Your task to perform on an android device: toggle show notifications on the lock screen Image 0: 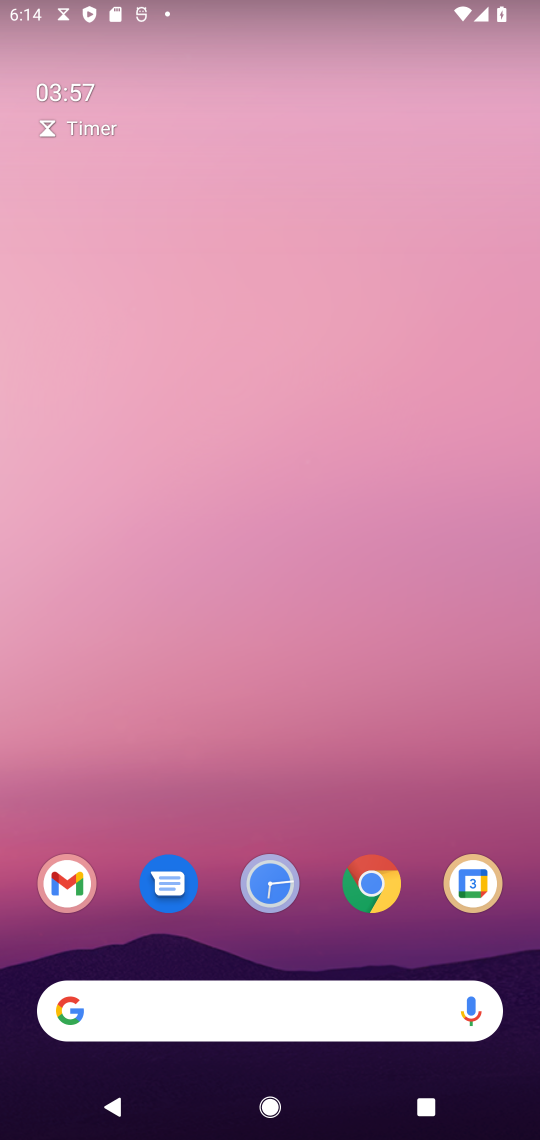
Step 0: drag from (302, 946) to (302, 514)
Your task to perform on an android device: toggle show notifications on the lock screen Image 1: 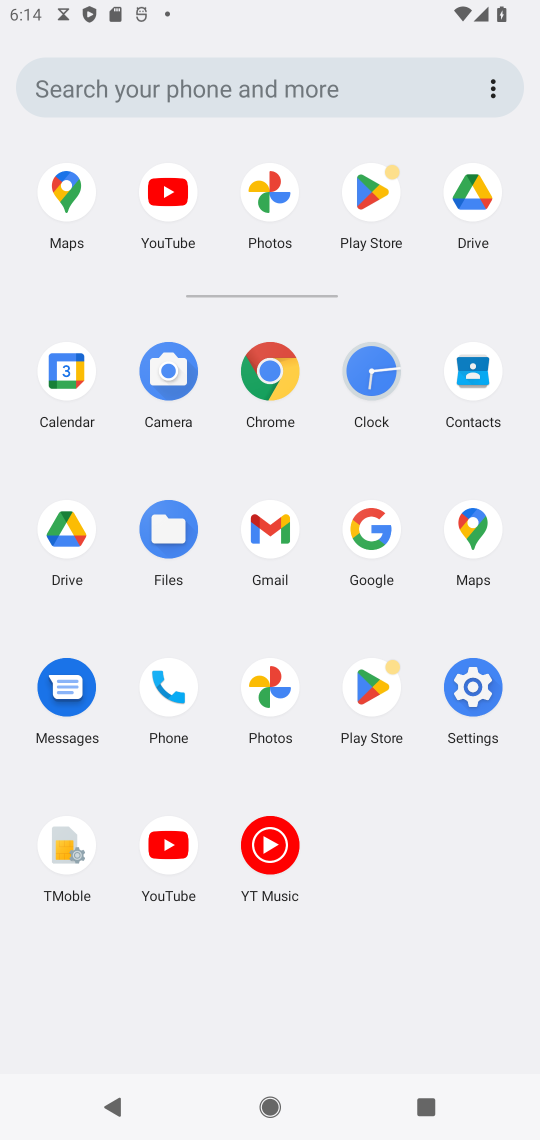
Step 1: click (459, 693)
Your task to perform on an android device: toggle show notifications on the lock screen Image 2: 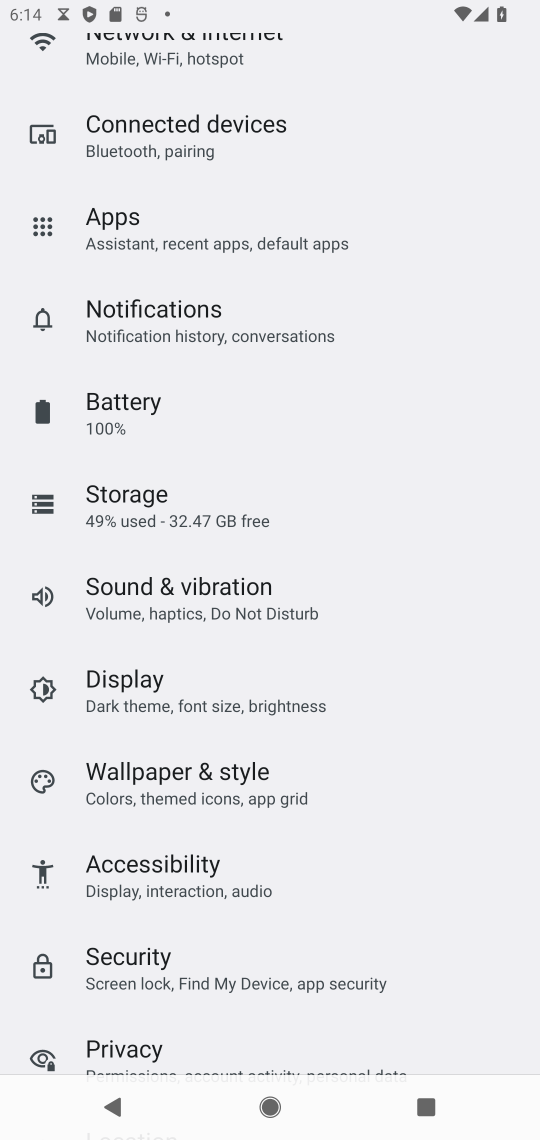
Step 2: click (158, 1048)
Your task to perform on an android device: toggle show notifications on the lock screen Image 3: 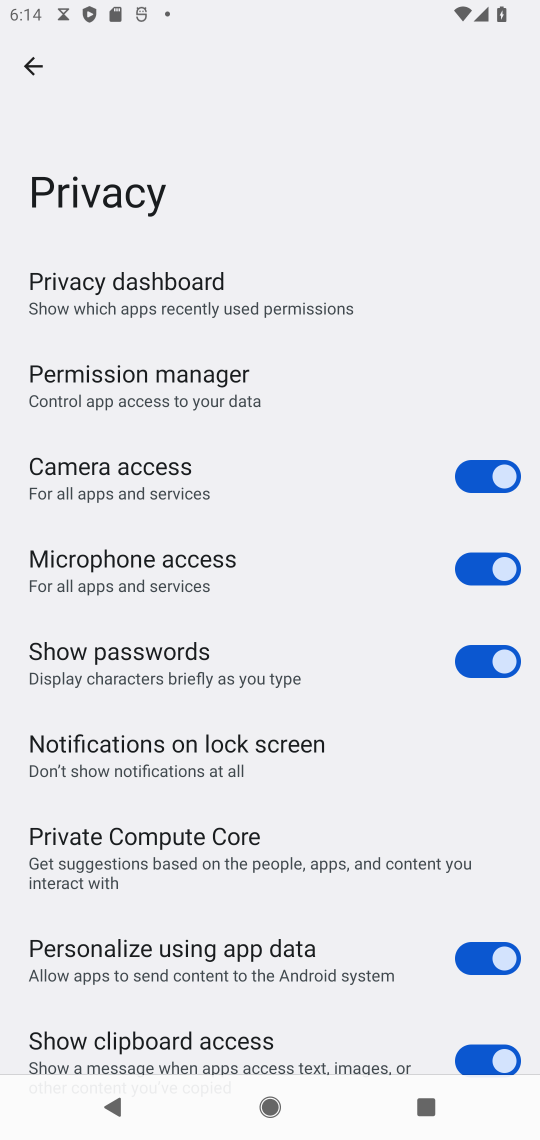
Step 3: click (118, 737)
Your task to perform on an android device: toggle show notifications on the lock screen Image 4: 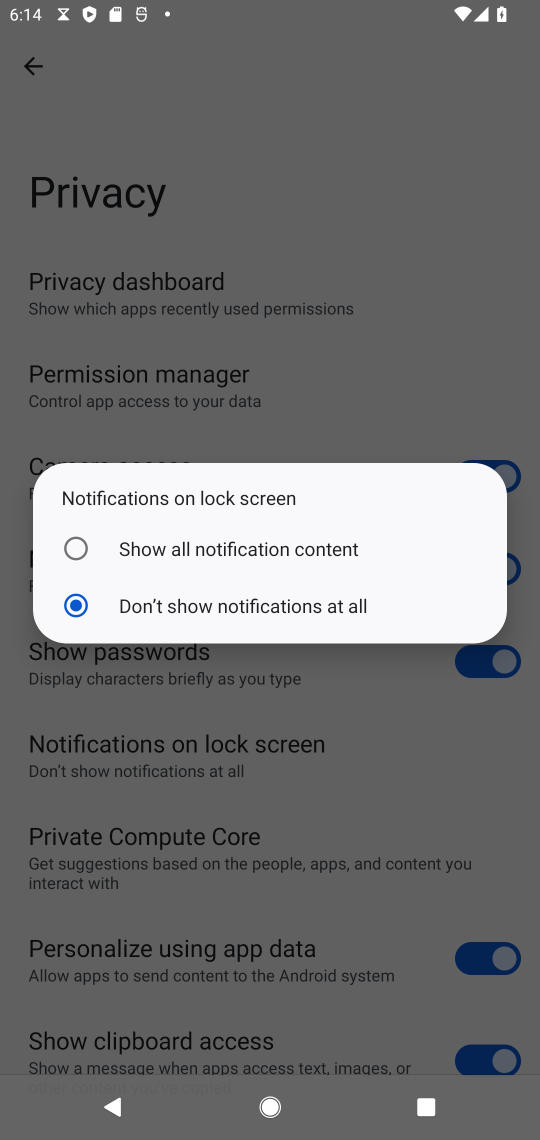
Step 4: click (190, 552)
Your task to perform on an android device: toggle show notifications on the lock screen Image 5: 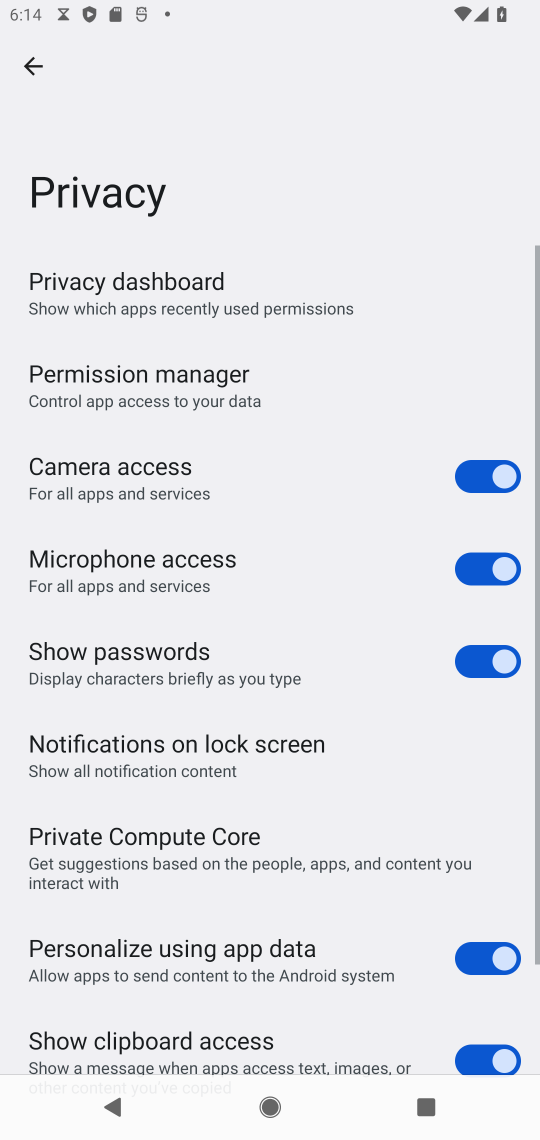
Step 5: task complete